Your task to perform on an android device: turn off airplane mode Image 0: 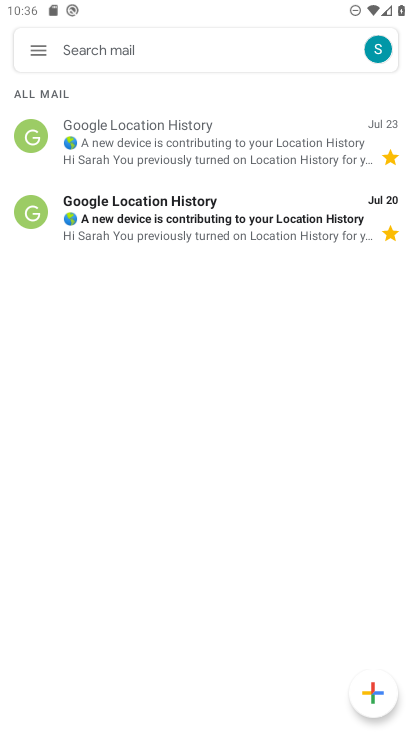
Step 0: press home button
Your task to perform on an android device: turn off airplane mode Image 1: 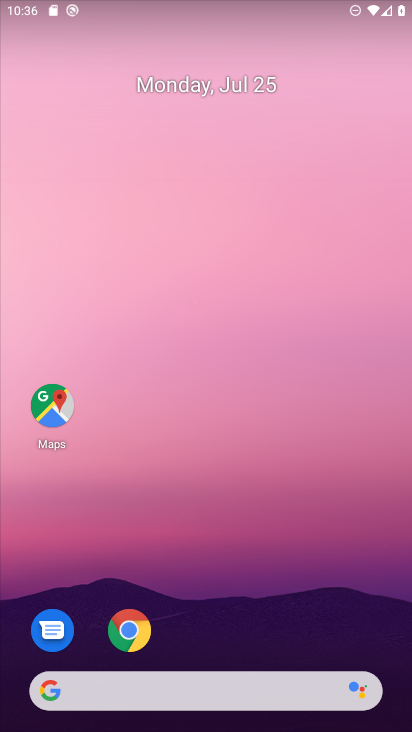
Step 1: drag from (326, 523) to (224, 28)
Your task to perform on an android device: turn off airplane mode Image 2: 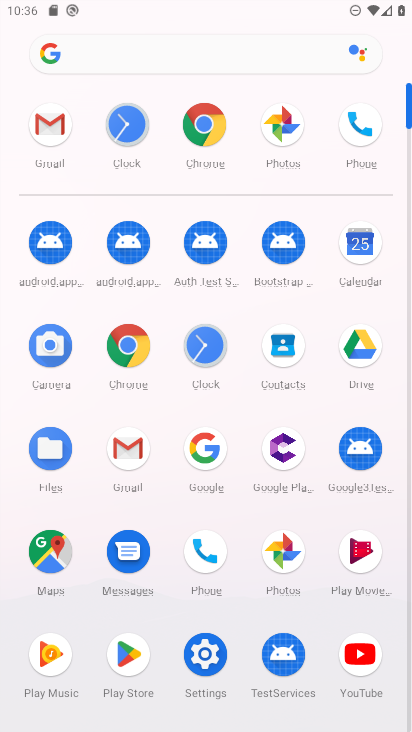
Step 2: click (205, 656)
Your task to perform on an android device: turn off airplane mode Image 3: 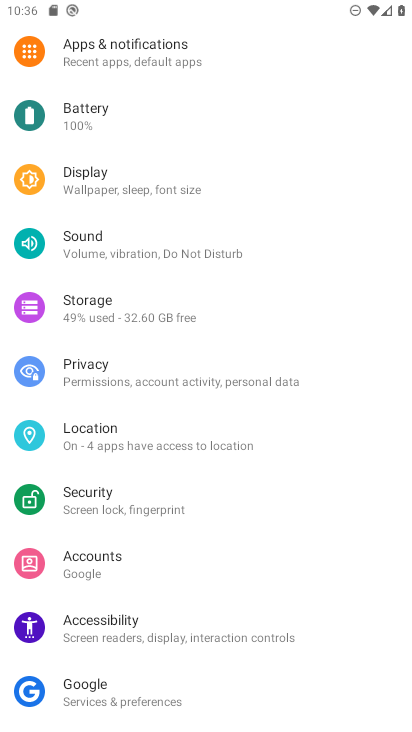
Step 3: drag from (186, 93) to (225, 449)
Your task to perform on an android device: turn off airplane mode Image 4: 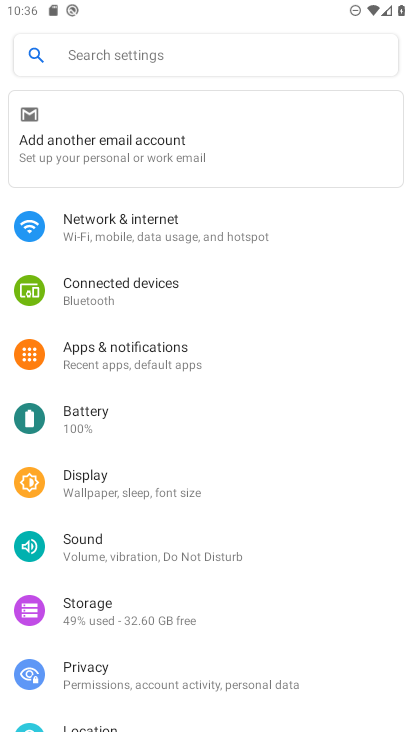
Step 4: click (173, 247)
Your task to perform on an android device: turn off airplane mode Image 5: 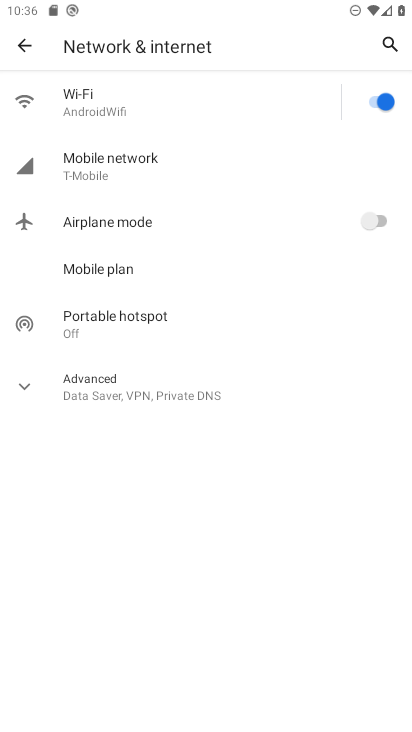
Step 5: task complete